Your task to perform on an android device: turn off wifi Image 0: 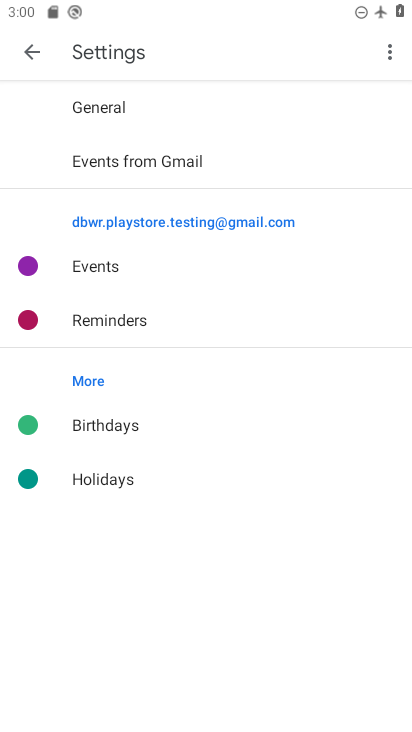
Step 0: drag from (264, 572) to (271, 191)
Your task to perform on an android device: turn off wifi Image 1: 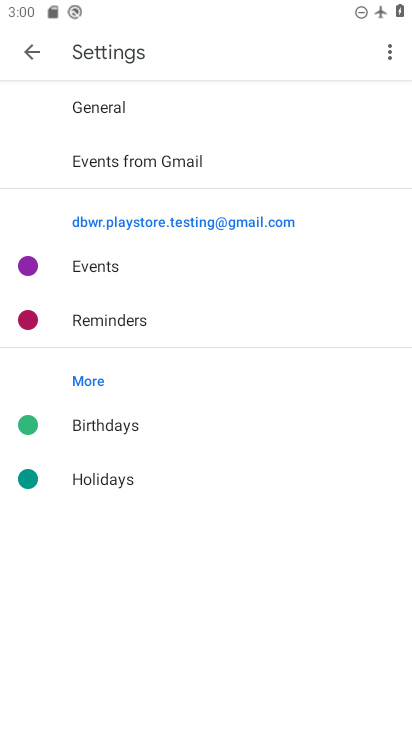
Step 1: press home button
Your task to perform on an android device: turn off wifi Image 2: 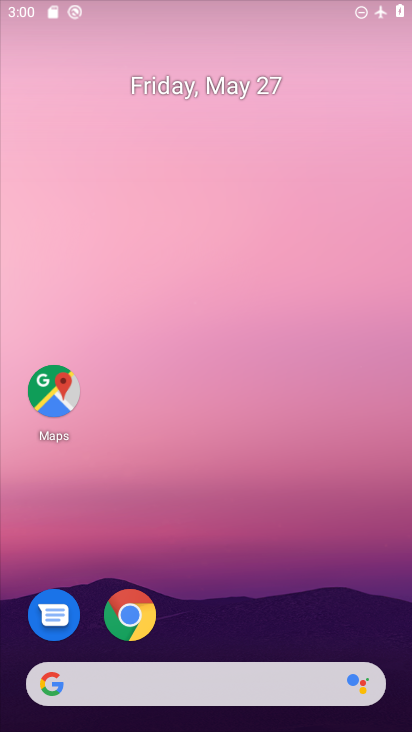
Step 2: drag from (282, 542) to (233, 8)
Your task to perform on an android device: turn off wifi Image 3: 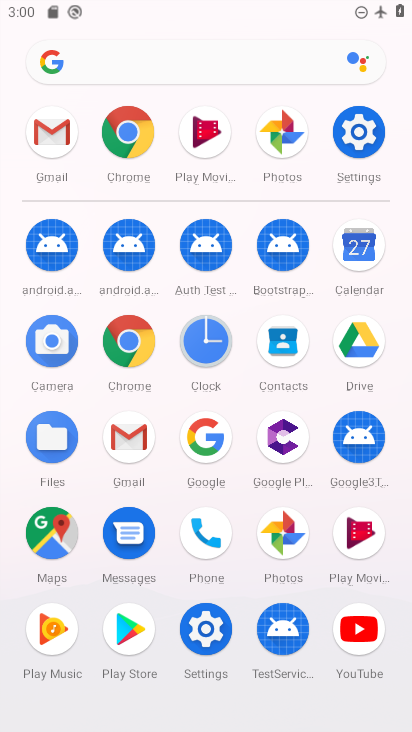
Step 3: click (341, 145)
Your task to perform on an android device: turn off wifi Image 4: 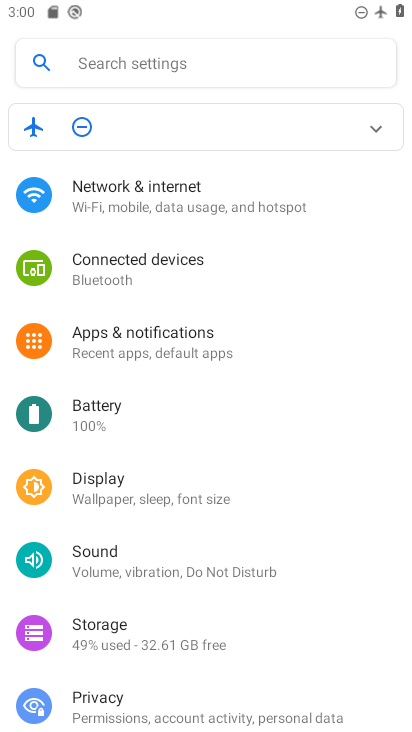
Step 4: click (176, 191)
Your task to perform on an android device: turn off wifi Image 5: 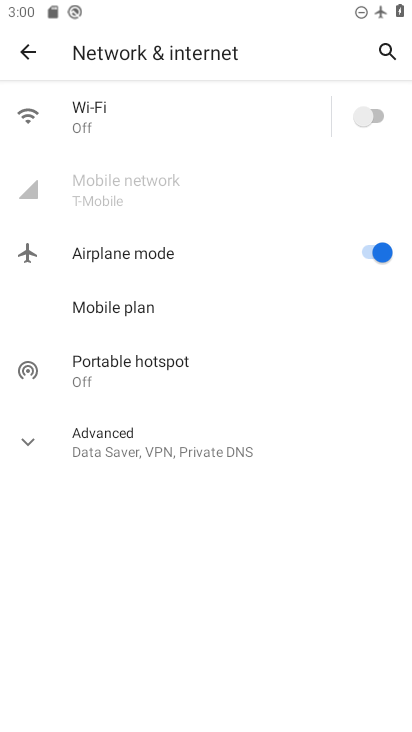
Step 5: task complete